Your task to perform on an android device: Open maps Image 0: 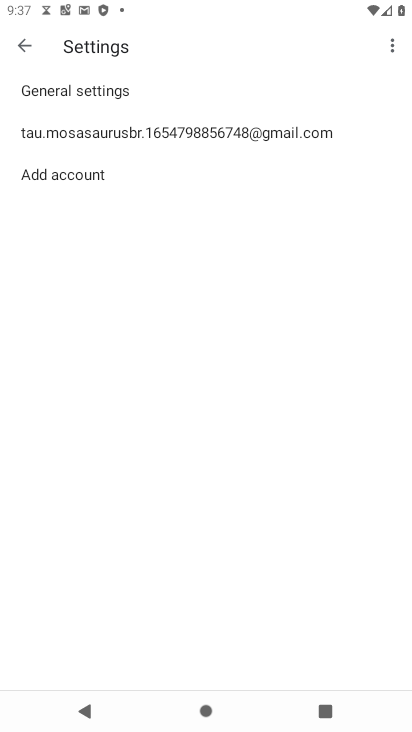
Step 0: press home button
Your task to perform on an android device: Open maps Image 1: 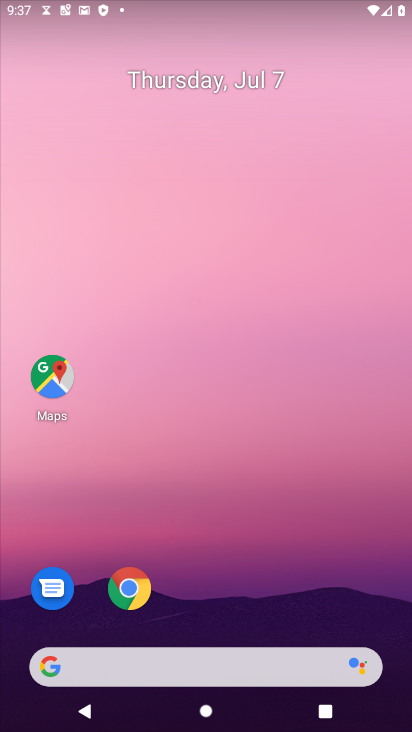
Step 1: drag from (245, 571) to (313, 11)
Your task to perform on an android device: Open maps Image 2: 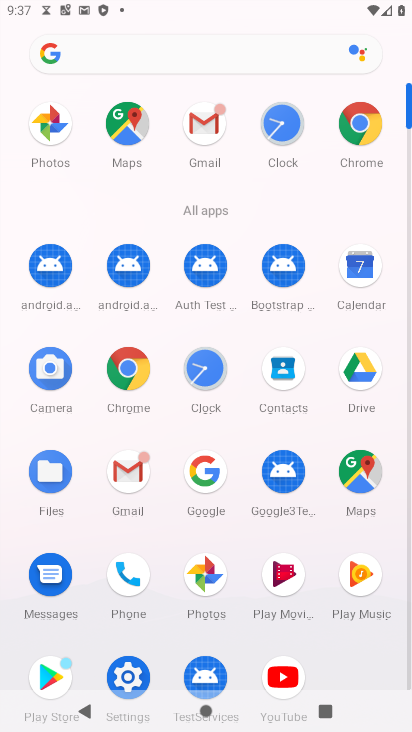
Step 2: click (339, 475)
Your task to perform on an android device: Open maps Image 3: 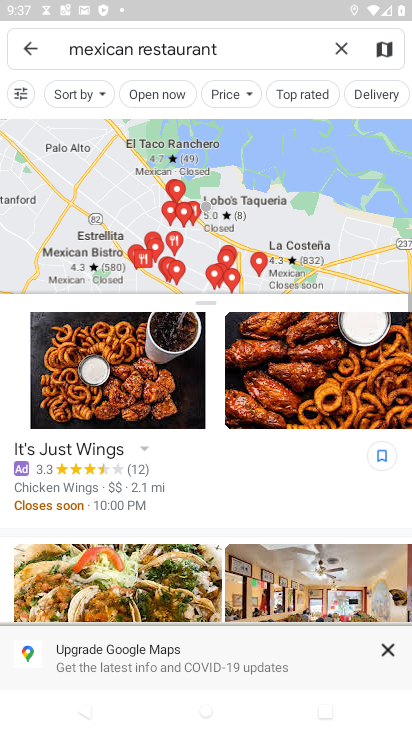
Step 3: task complete